Your task to perform on an android device: Open Chrome and go to the settings page Image 0: 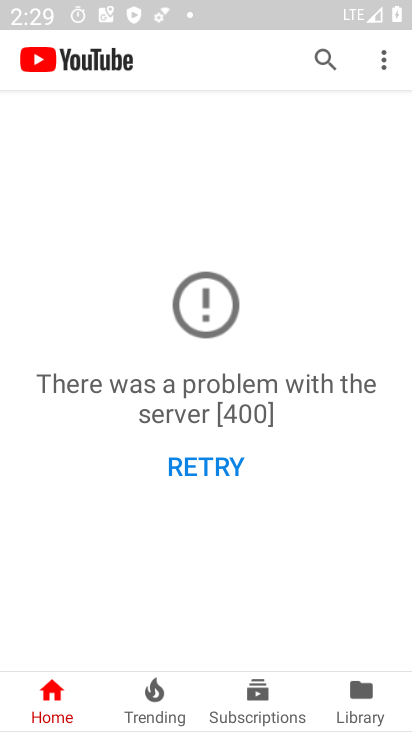
Step 0: press back button
Your task to perform on an android device: Open Chrome and go to the settings page Image 1: 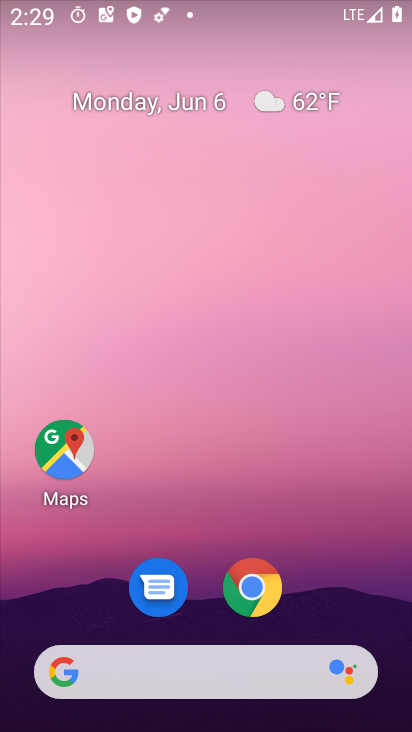
Step 1: drag from (304, 599) to (241, 109)
Your task to perform on an android device: Open Chrome and go to the settings page Image 2: 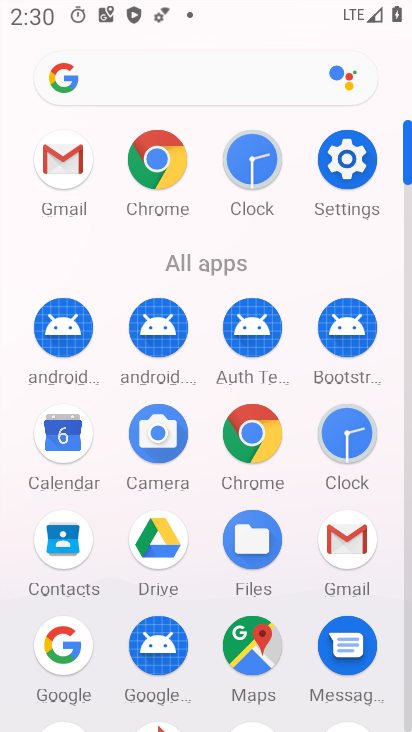
Step 2: click (254, 430)
Your task to perform on an android device: Open Chrome and go to the settings page Image 3: 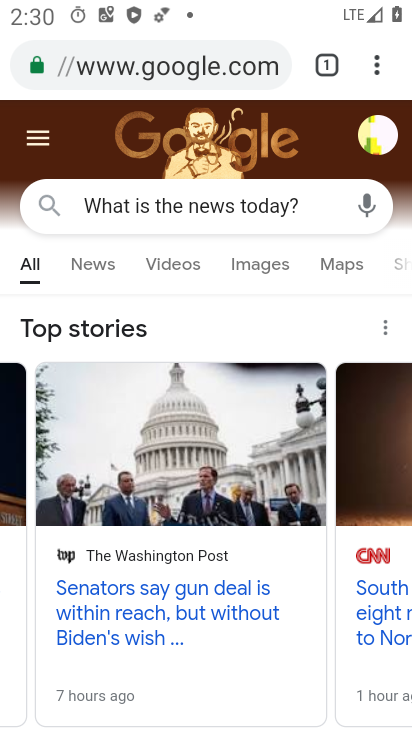
Step 3: task complete